Your task to perform on an android device: toggle priority inbox in the gmail app Image 0: 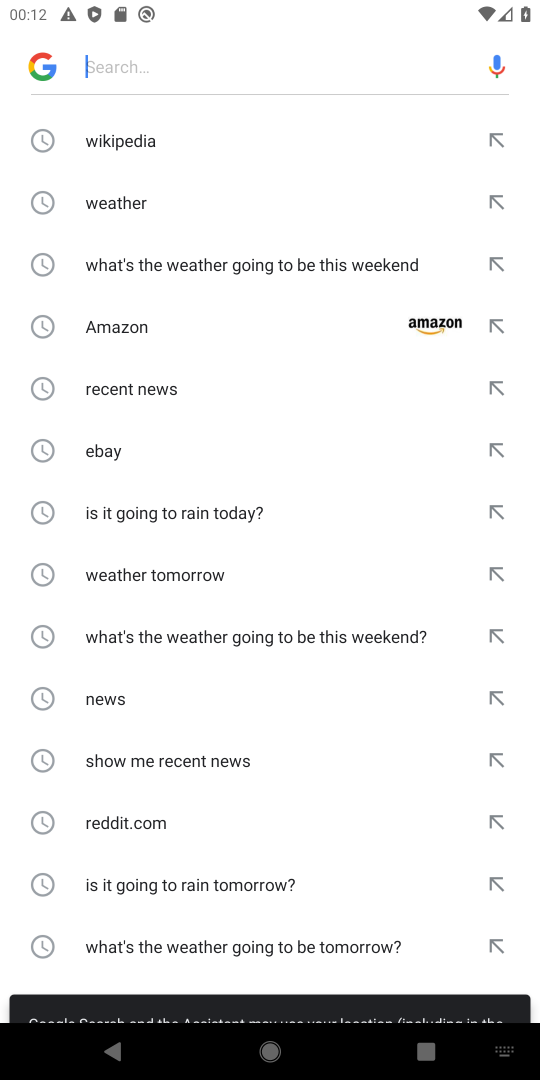
Step 0: press home button
Your task to perform on an android device: toggle priority inbox in the gmail app Image 1: 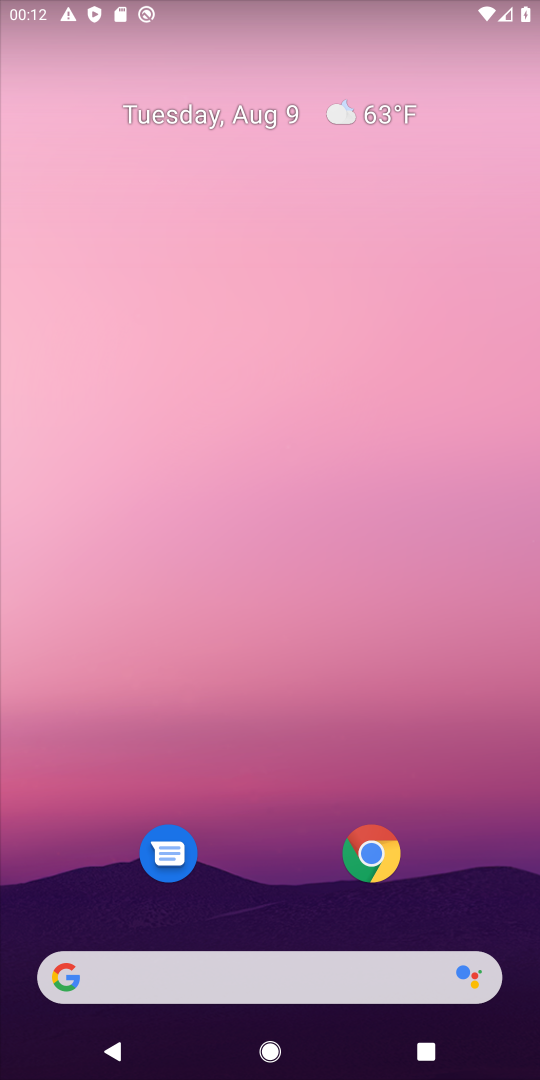
Step 1: drag from (263, 837) to (263, 215)
Your task to perform on an android device: toggle priority inbox in the gmail app Image 2: 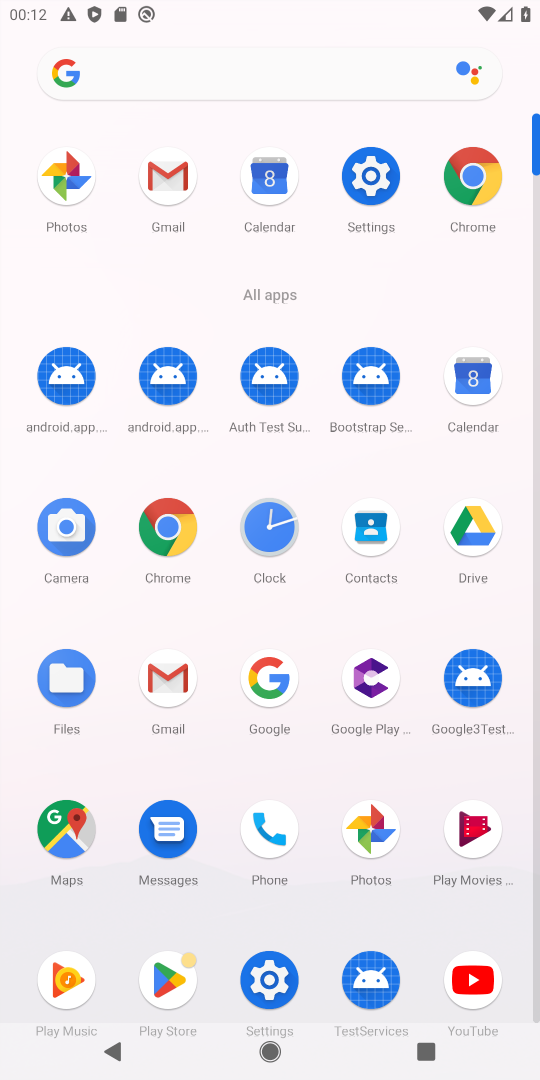
Step 2: click (165, 686)
Your task to perform on an android device: toggle priority inbox in the gmail app Image 3: 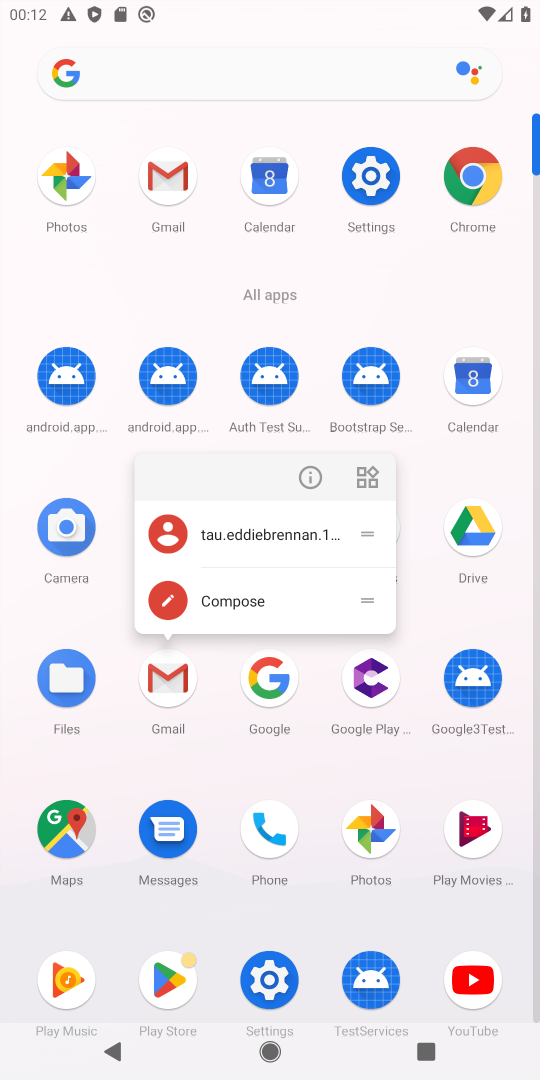
Step 3: click (165, 686)
Your task to perform on an android device: toggle priority inbox in the gmail app Image 4: 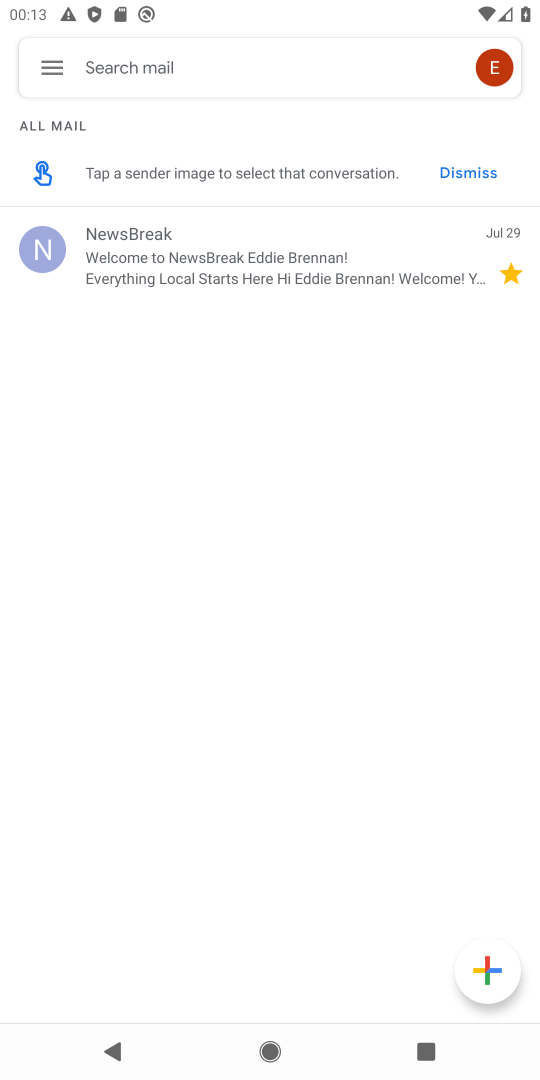
Step 4: click (58, 71)
Your task to perform on an android device: toggle priority inbox in the gmail app Image 5: 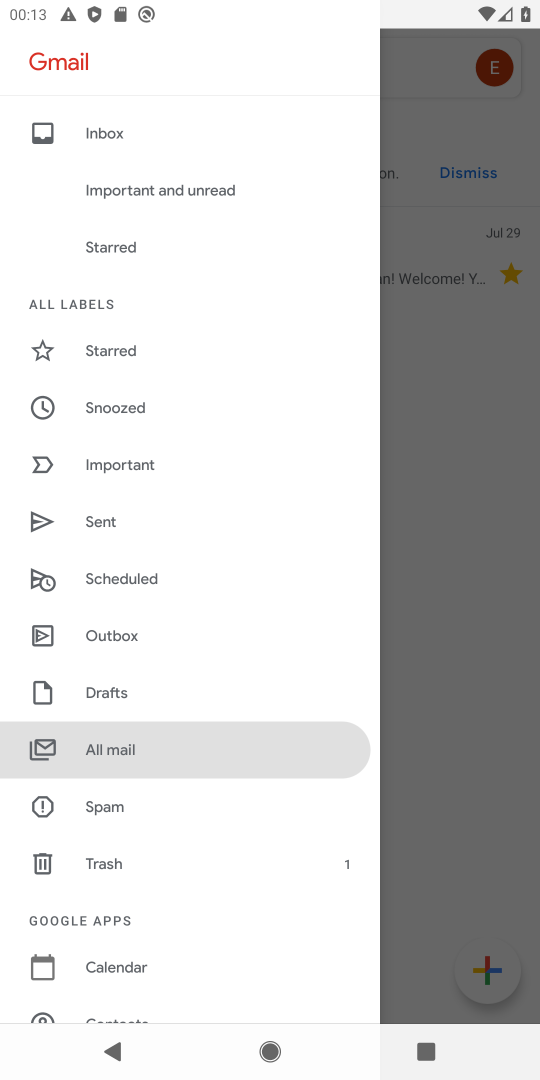
Step 5: drag from (151, 948) to (145, 363)
Your task to perform on an android device: toggle priority inbox in the gmail app Image 6: 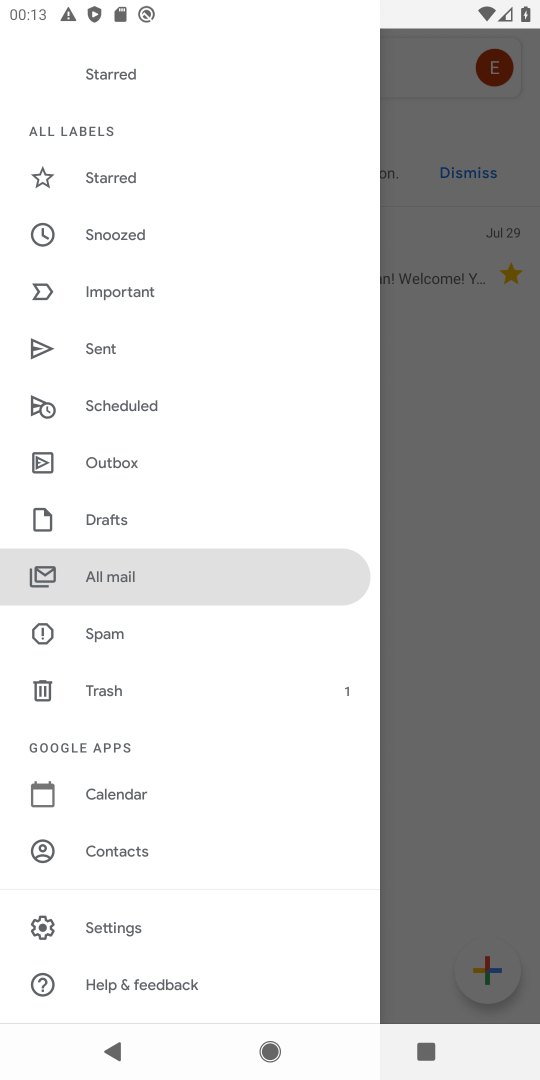
Step 6: click (166, 914)
Your task to perform on an android device: toggle priority inbox in the gmail app Image 7: 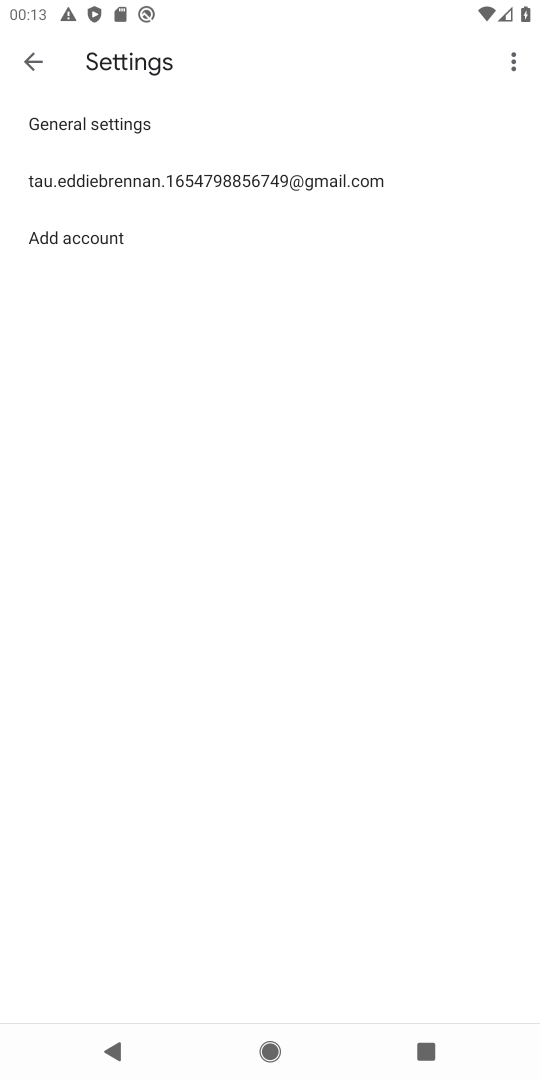
Step 7: click (340, 170)
Your task to perform on an android device: toggle priority inbox in the gmail app Image 8: 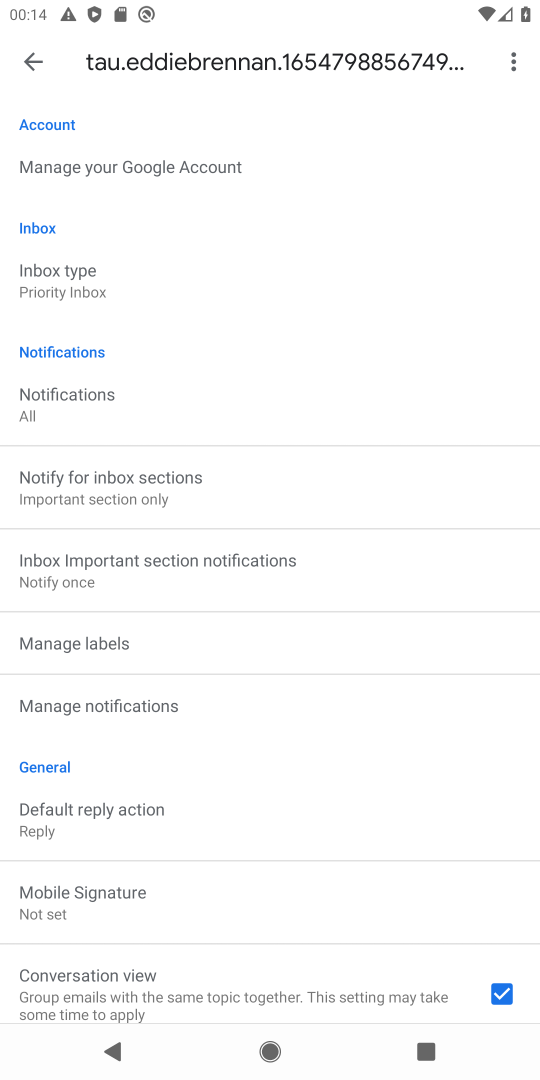
Step 8: click (98, 283)
Your task to perform on an android device: toggle priority inbox in the gmail app Image 9: 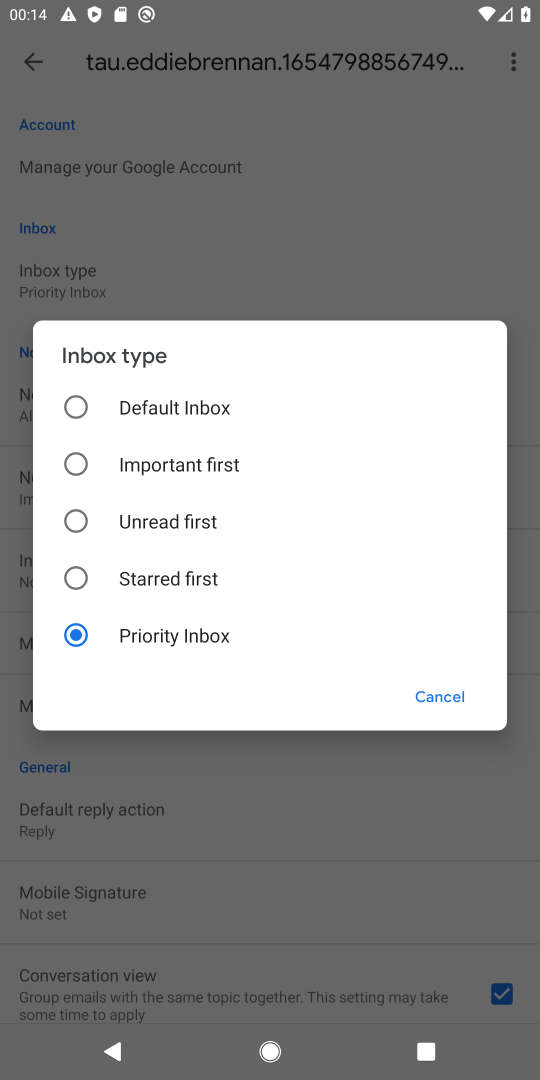
Step 9: click (132, 393)
Your task to perform on an android device: toggle priority inbox in the gmail app Image 10: 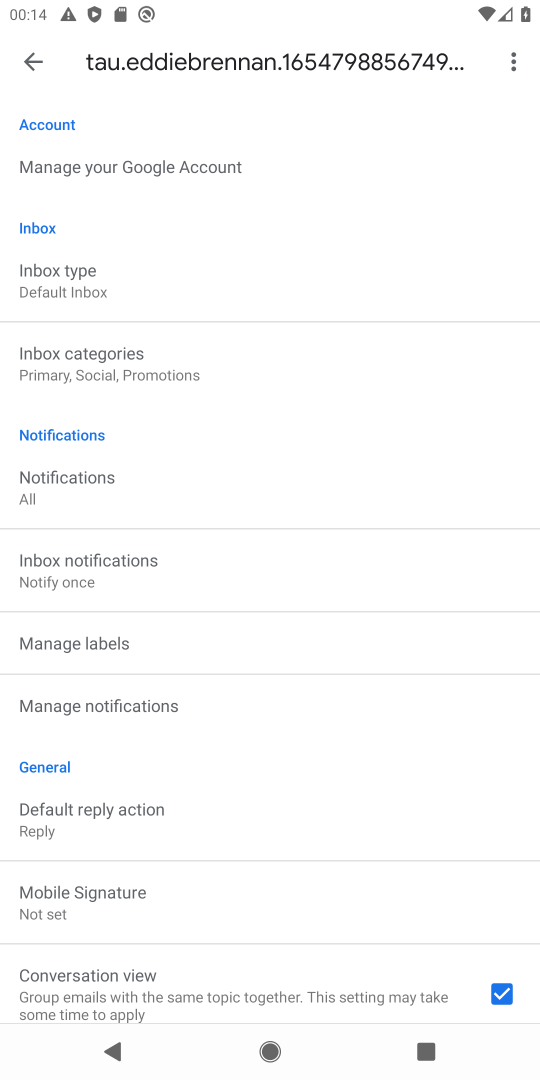
Step 10: task complete